Your task to perform on an android device: turn on wifi Image 0: 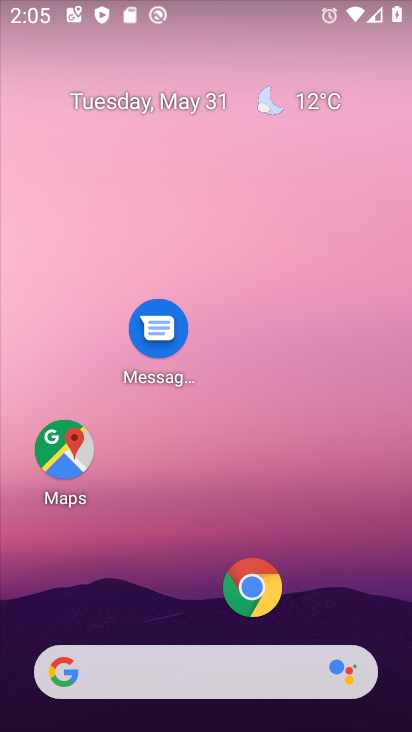
Step 0: click (293, 141)
Your task to perform on an android device: turn on wifi Image 1: 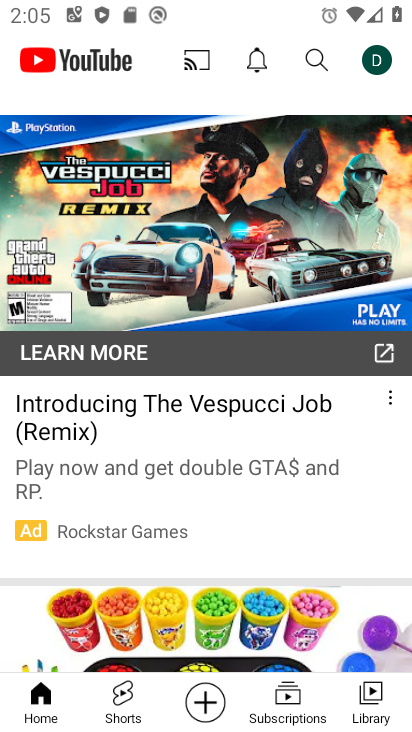
Step 1: press home button
Your task to perform on an android device: turn on wifi Image 2: 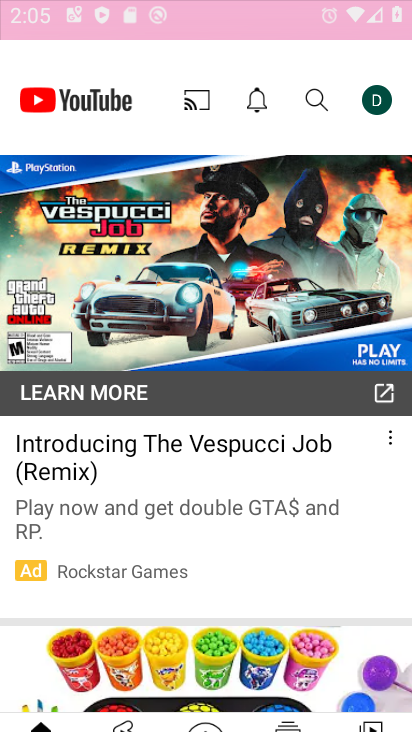
Step 2: drag from (235, 564) to (310, 1)
Your task to perform on an android device: turn on wifi Image 3: 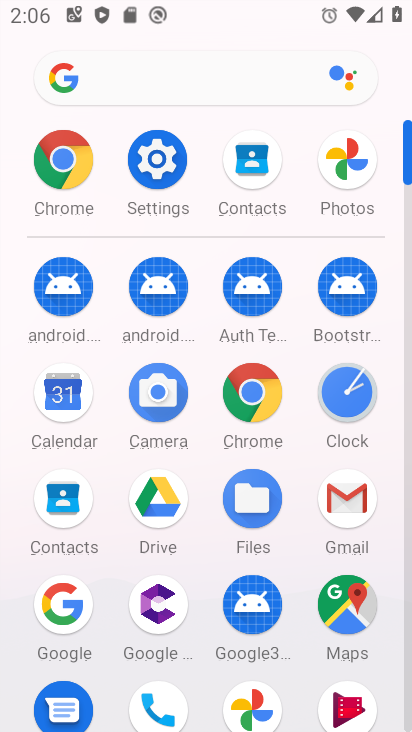
Step 3: click (157, 166)
Your task to perform on an android device: turn on wifi Image 4: 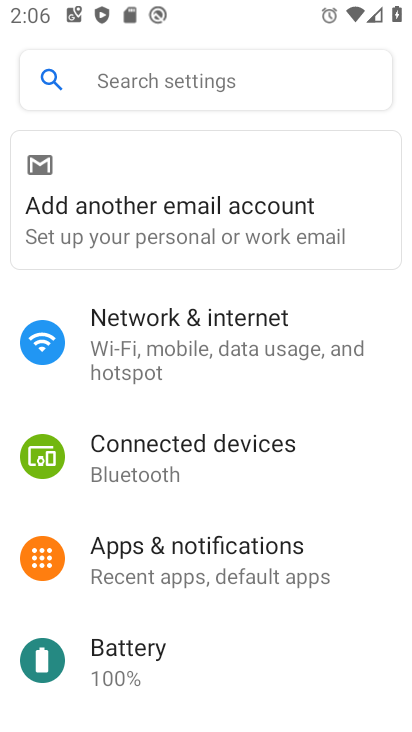
Step 4: click (194, 318)
Your task to perform on an android device: turn on wifi Image 5: 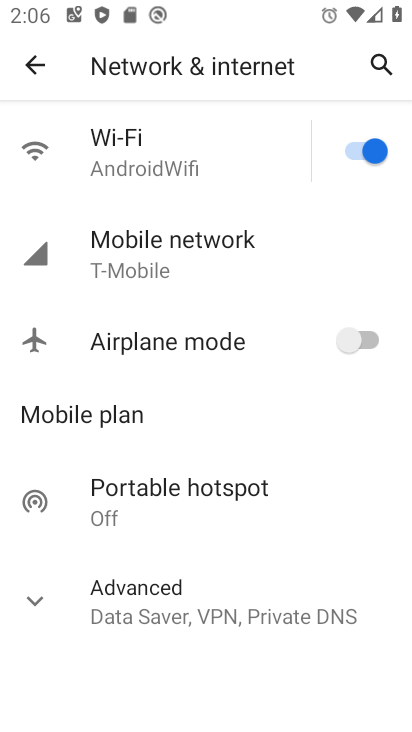
Step 5: click (231, 150)
Your task to perform on an android device: turn on wifi Image 6: 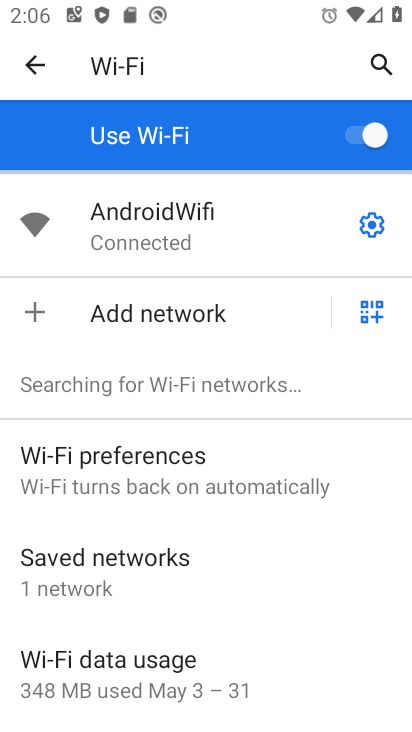
Step 6: task complete